Your task to perform on an android device: check data usage Image 0: 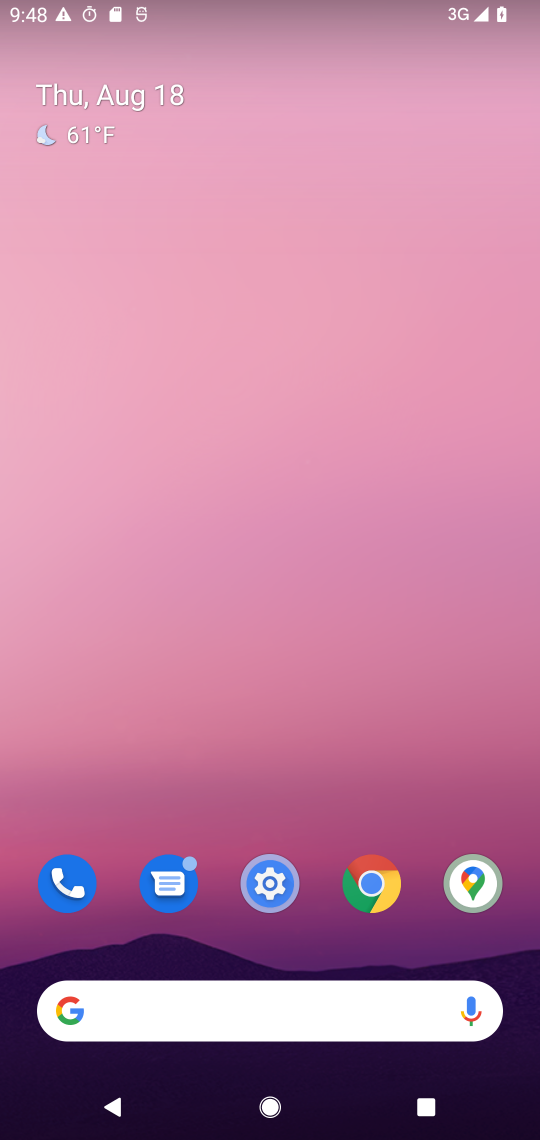
Step 0: drag from (45, 1063) to (95, 513)
Your task to perform on an android device: check data usage Image 1: 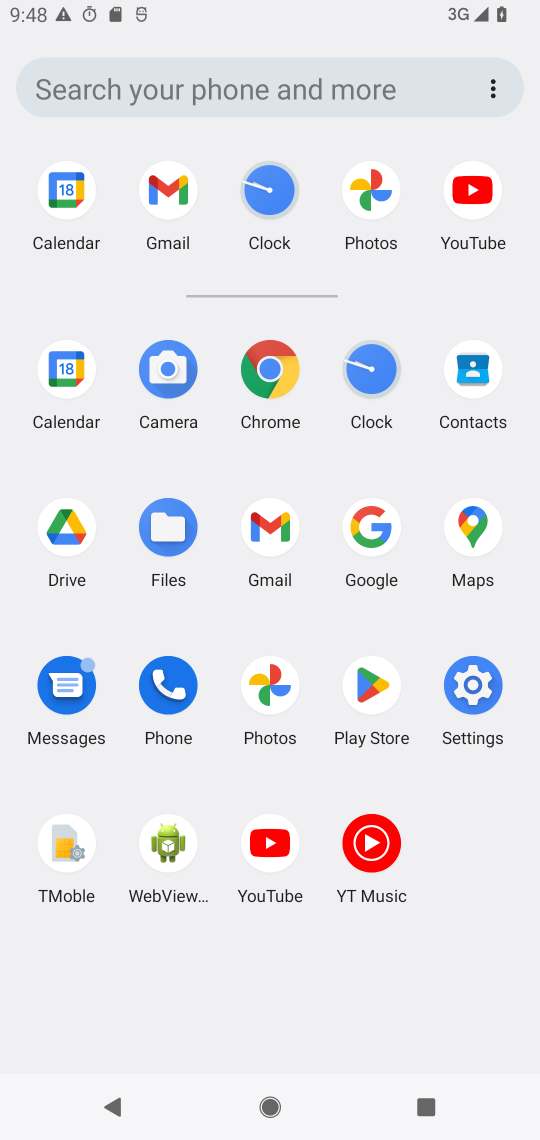
Step 1: click (475, 676)
Your task to perform on an android device: check data usage Image 2: 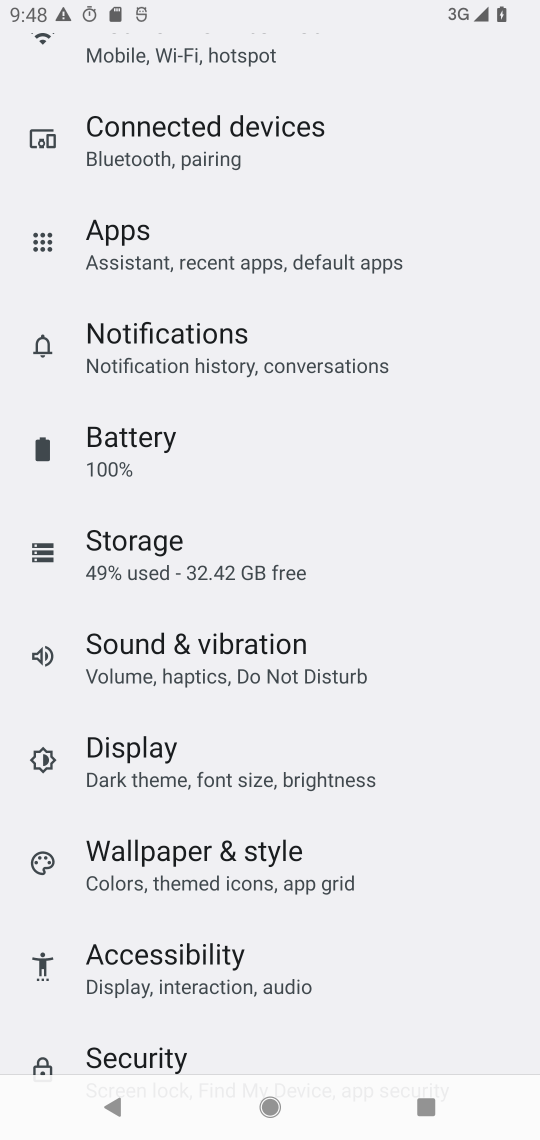
Step 2: drag from (463, 129) to (516, 477)
Your task to perform on an android device: check data usage Image 3: 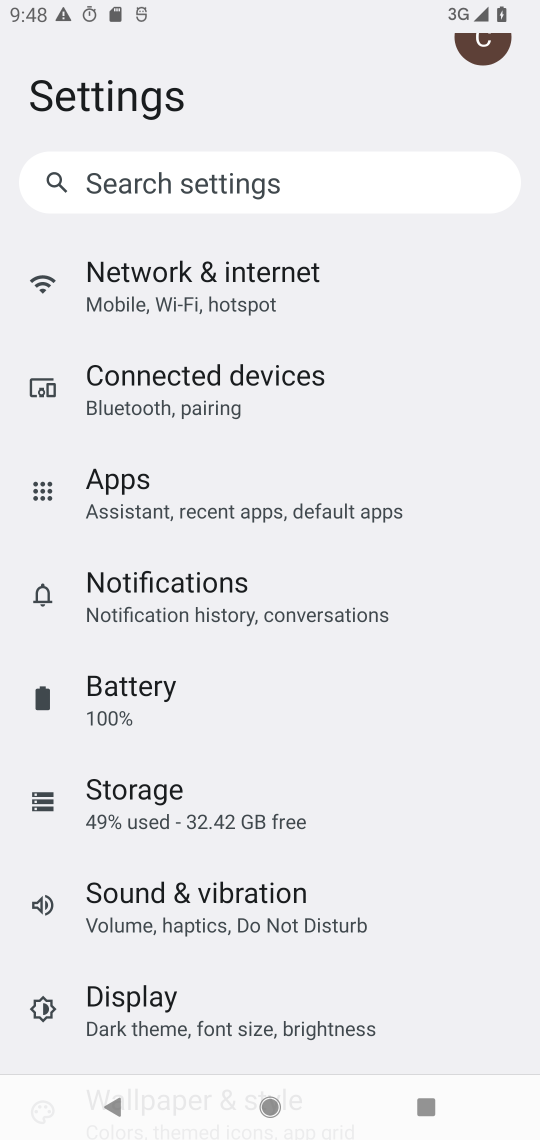
Step 3: click (161, 279)
Your task to perform on an android device: check data usage Image 4: 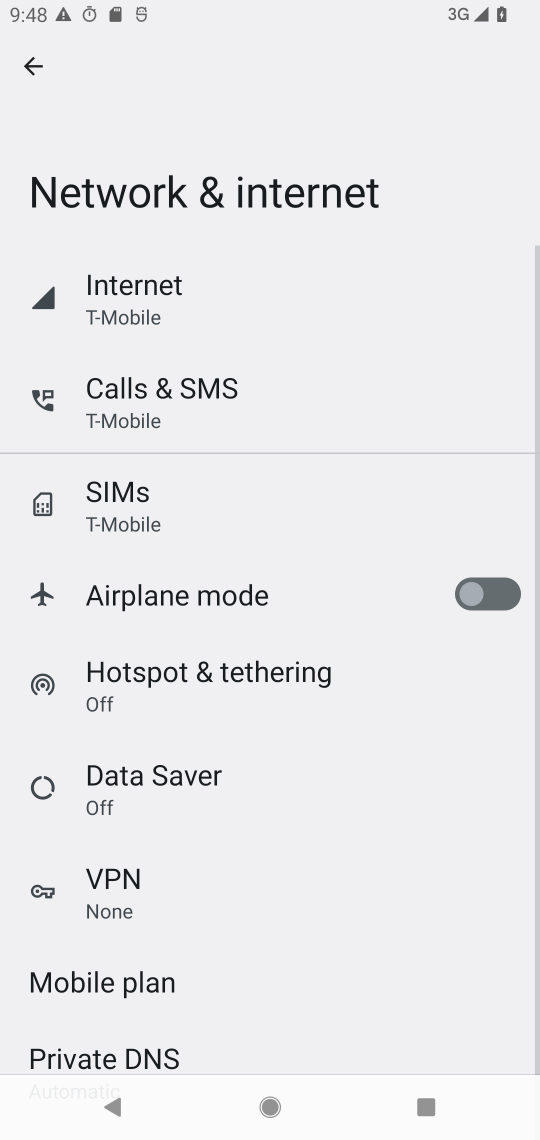
Step 4: click (161, 279)
Your task to perform on an android device: check data usage Image 5: 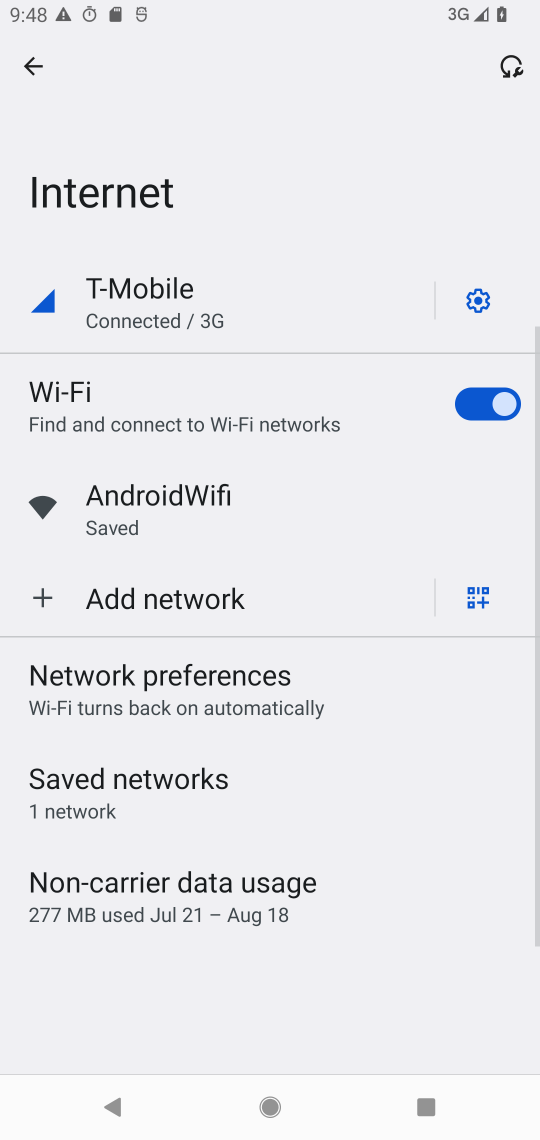
Step 5: click (215, 889)
Your task to perform on an android device: check data usage Image 6: 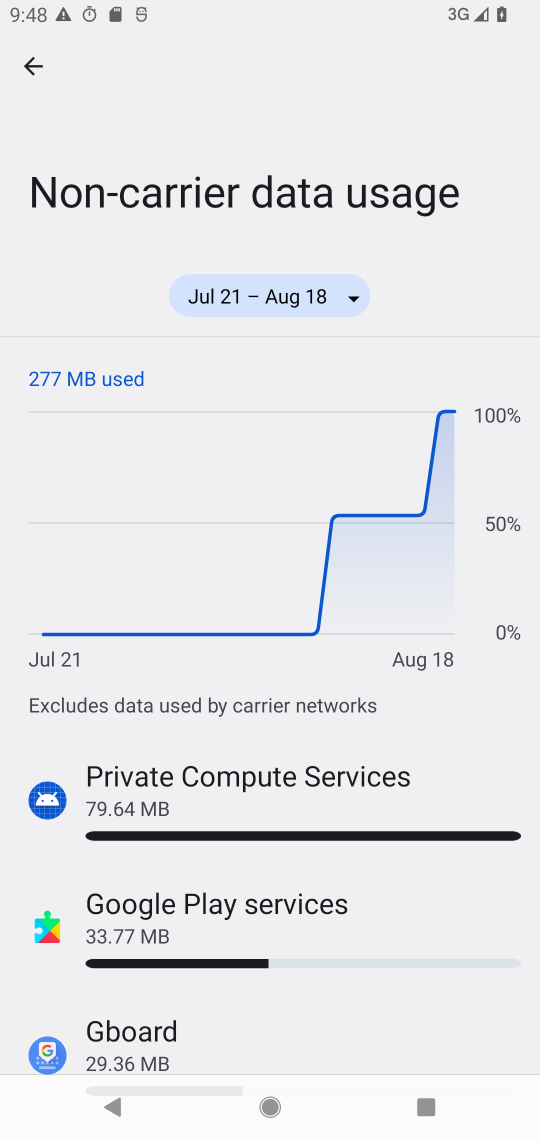
Step 6: task complete